Your task to perform on an android device: Go to calendar. Show me events next week Image 0: 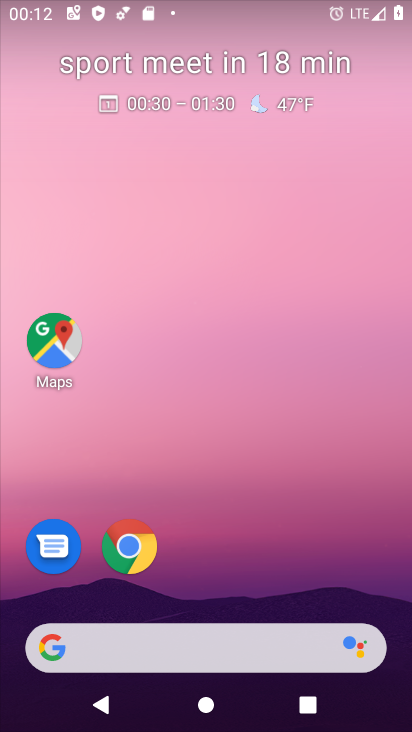
Step 0: drag from (344, 577) to (375, 8)
Your task to perform on an android device: Go to calendar. Show me events next week Image 1: 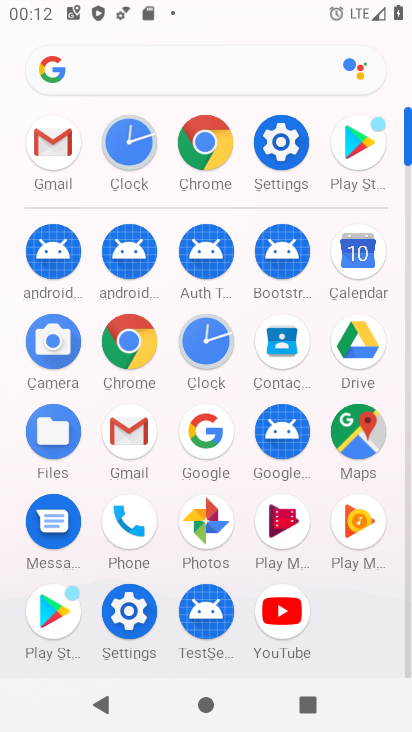
Step 1: click (362, 262)
Your task to perform on an android device: Go to calendar. Show me events next week Image 2: 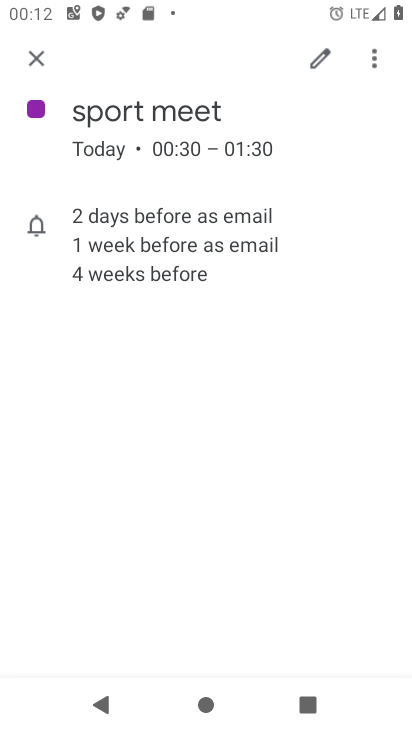
Step 2: click (43, 69)
Your task to perform on an android device: Go to calendar. Show me events next week Image 3: 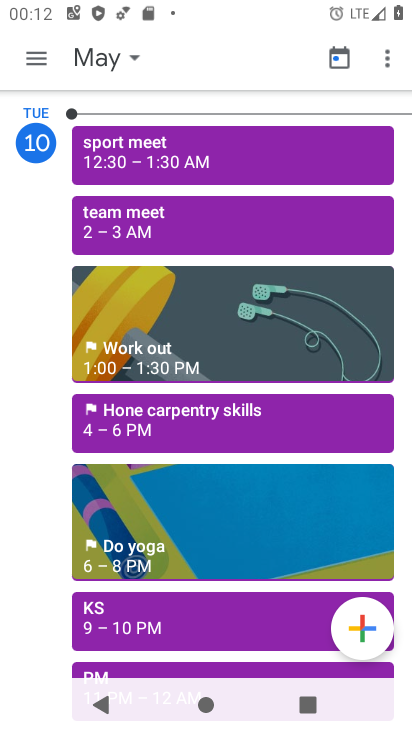
Step 3: click (45, 57)
Your task to perform on an android device: Go to calendar. Show me events next week Image 4: 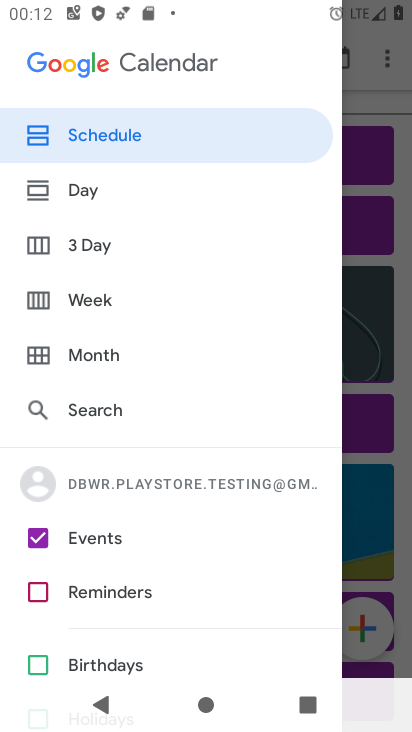
Step 4: click (98, 296)
Your task to perform on an android device: Go to calendar. Show me events next week Image 5: 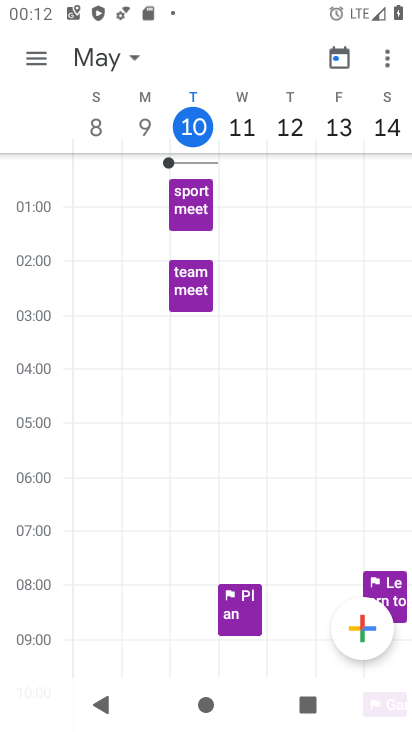
Step 5: task complete